Your task to perform on an android device: Go to notification settings Image 0: 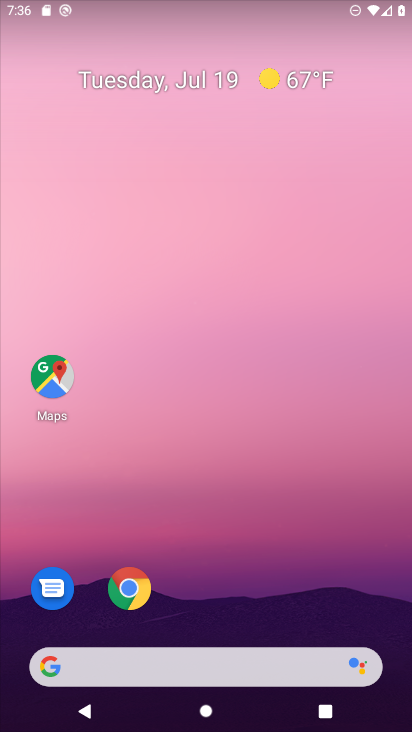
Step 0: drag from (355, 612) to (358, 160)
Your task to perform on an android device: Go to notification settings Image 1: 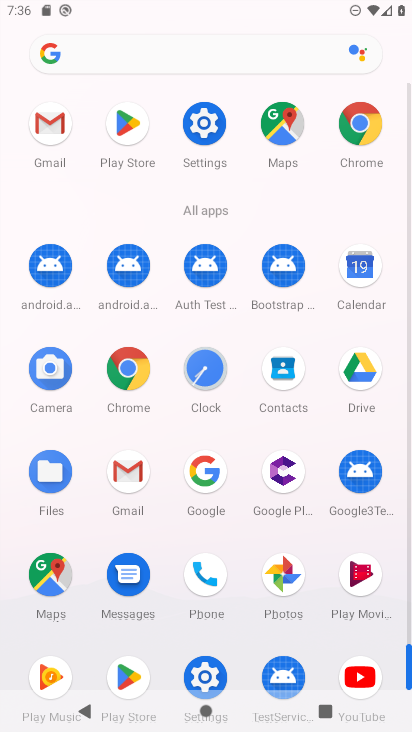
Step 1: click (197, 126)
Your task to perform on an android device: Go to notification settings Image 2: 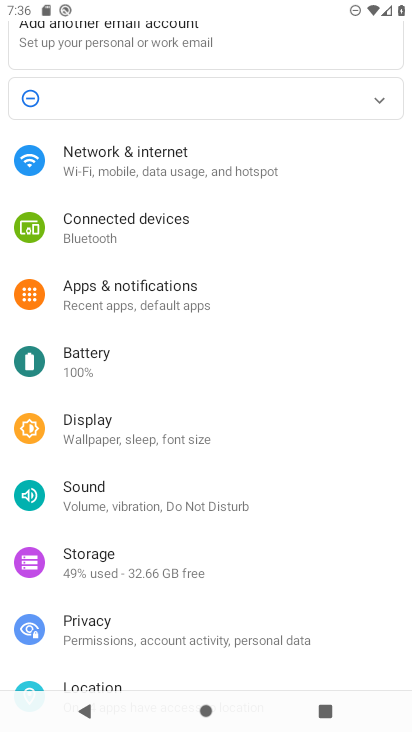
Step 2: drag from (317, 453) to (335, 368)
Your task to perform on an android device: Go to notification settings Image 3: 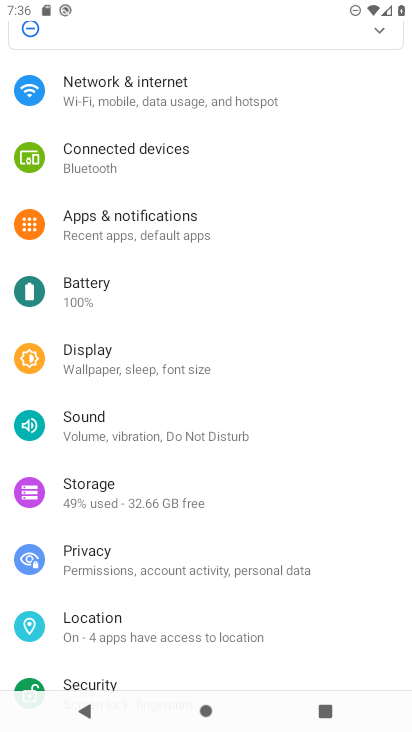
Step 3: drag from (345, 502) to (381, 287)
Your task to perform on an android device: Go to notification settings Image 4: 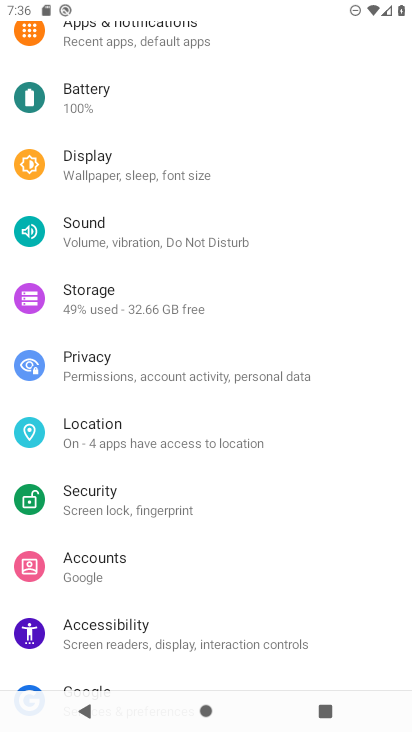
Step 4: drag from (375, 243) to (364, 322)
Your task to perform on an android device: Go to notification settings Image 5: 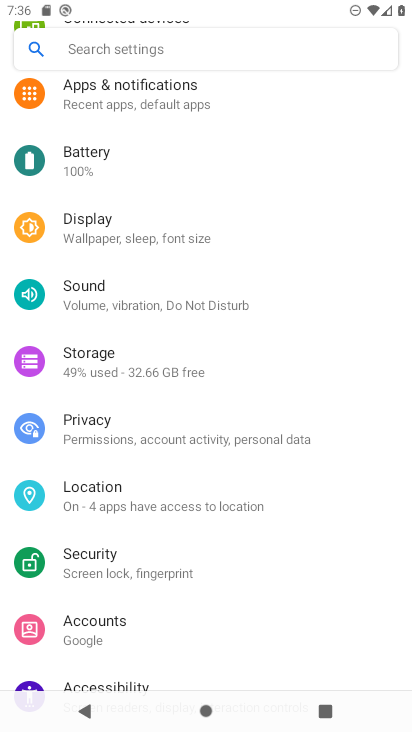
Step 5: drag from (352, 237) to (355, 362)
Your task to perform on an android device: Go to notification settings Image 6: 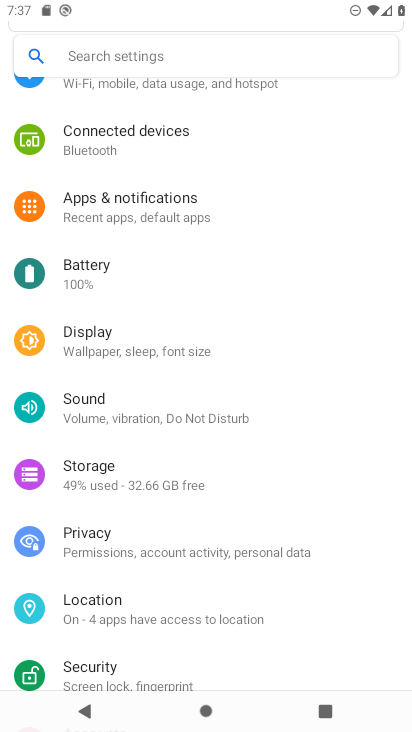
Step 6: drag from (337, 232) to (331, 345)
Your task to perform on an android device: Go to notification settings Image 7: 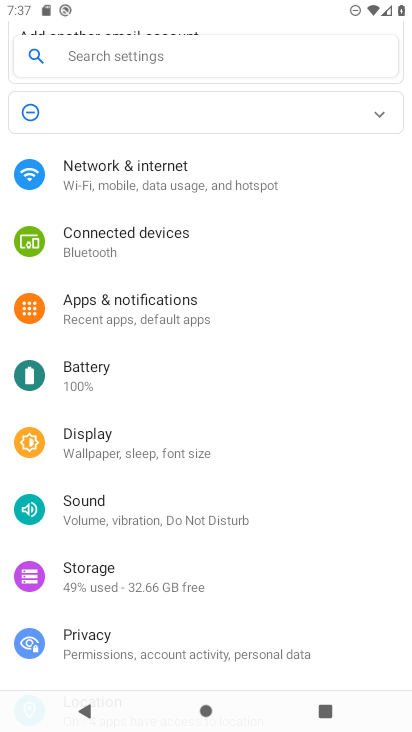
Step 7: drag from (335, 233) to (333, 356)
Your task to perform on an android device: Go to notification settings Image 8: 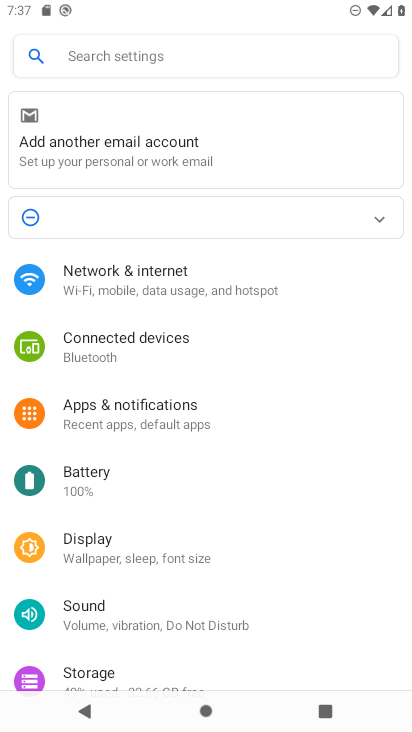
Step 8: click (237, 420)
Your task to perform on an android device: Go to notification settings Image 9: 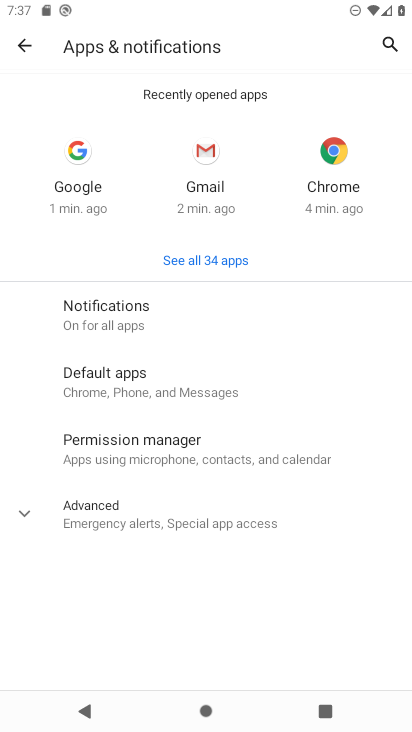
Step 9: click (213, 322)
Your task to perform on an android device: Go to notification settings Image 10: 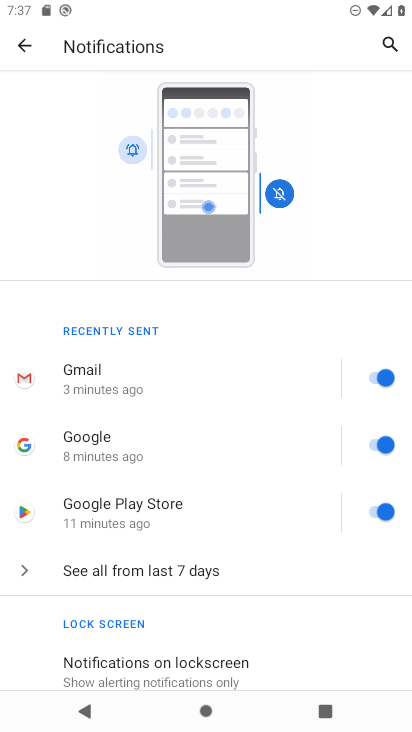
Step 10: task complete